Your task to perform on an android device: Add "alienware area 51" to the cart on target.com Image 0: 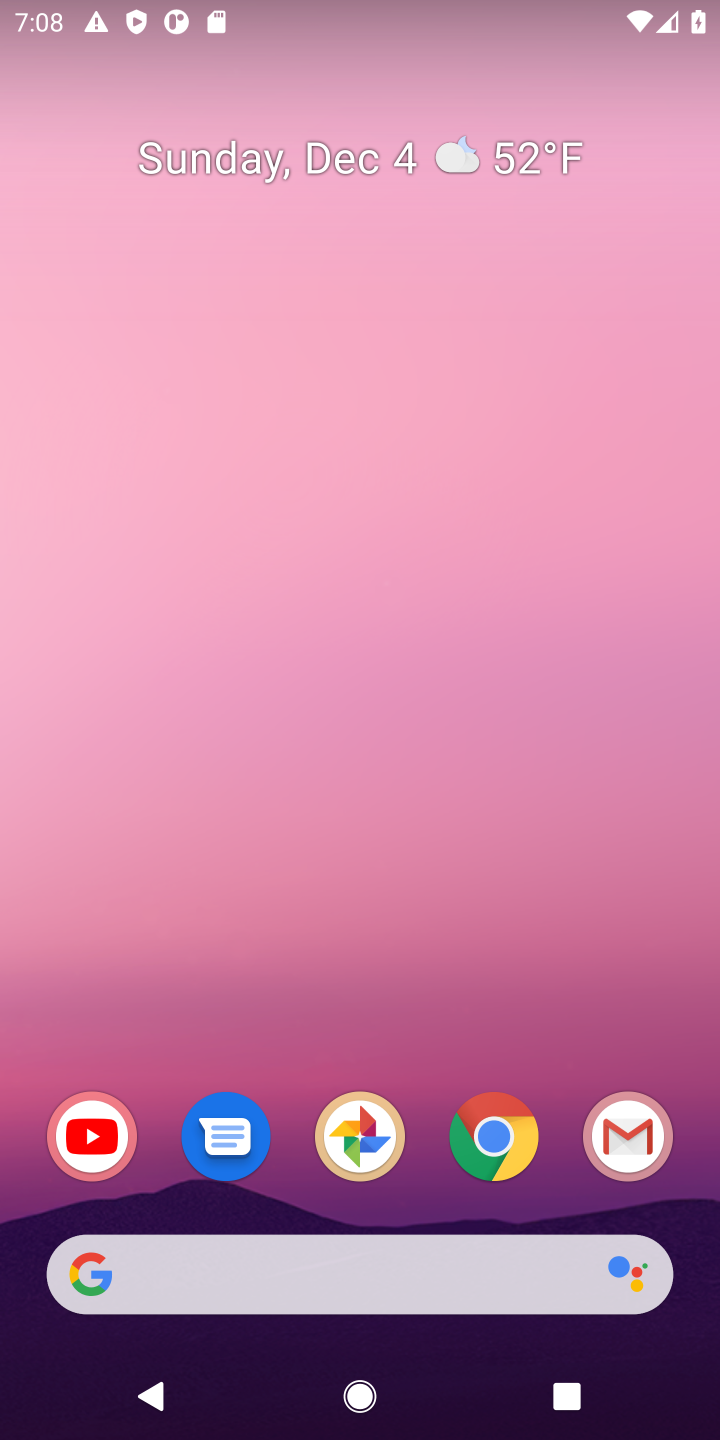
Step 0: click (503, 1143)
Your task to perform on an android device: Add "alienware area 51" to the cart on target.com Image 1: 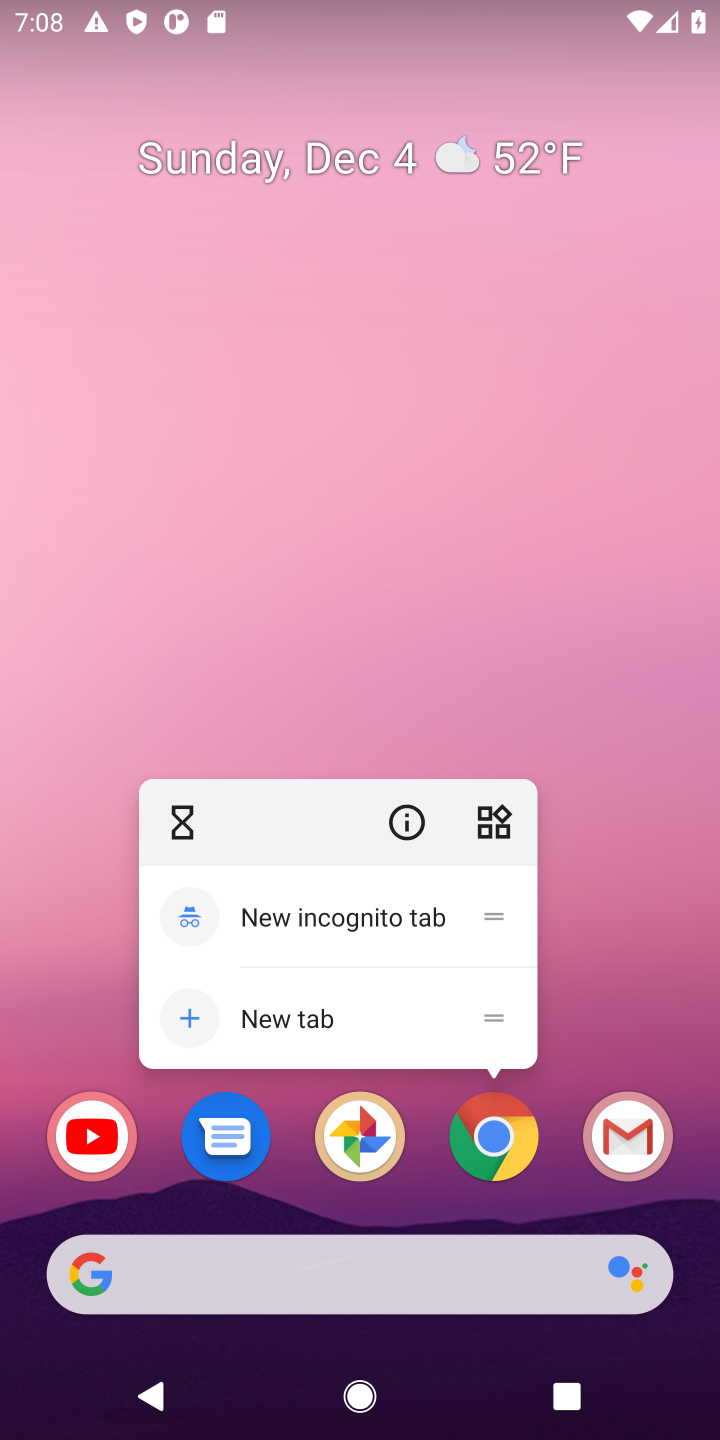
Step 1: click (503, 1143)
Your task to perform on an android device: Add "alienware area 51" to the cart on target.com Image 2: 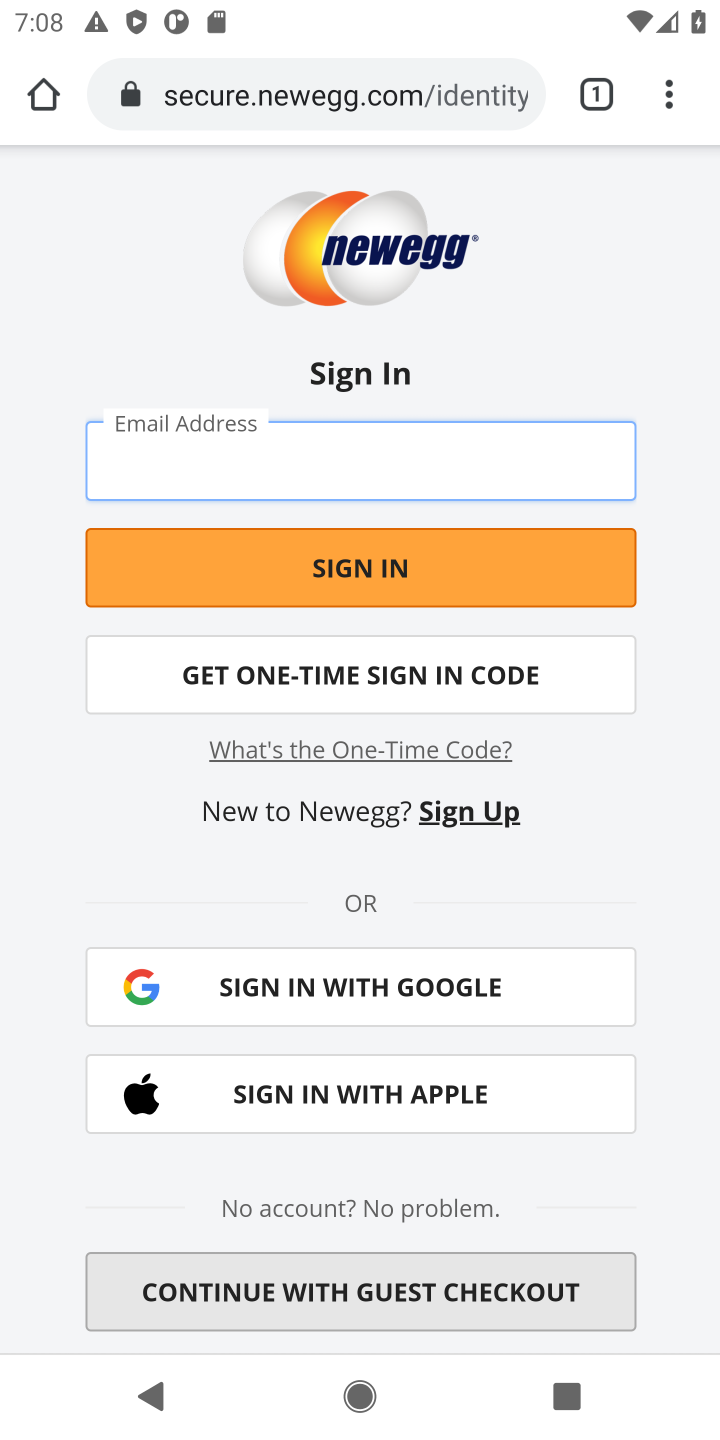
Step 2: click (310, 95)
Your task to perform on an android device: Add "alienware area 51" to the cart on target.com Image 3: 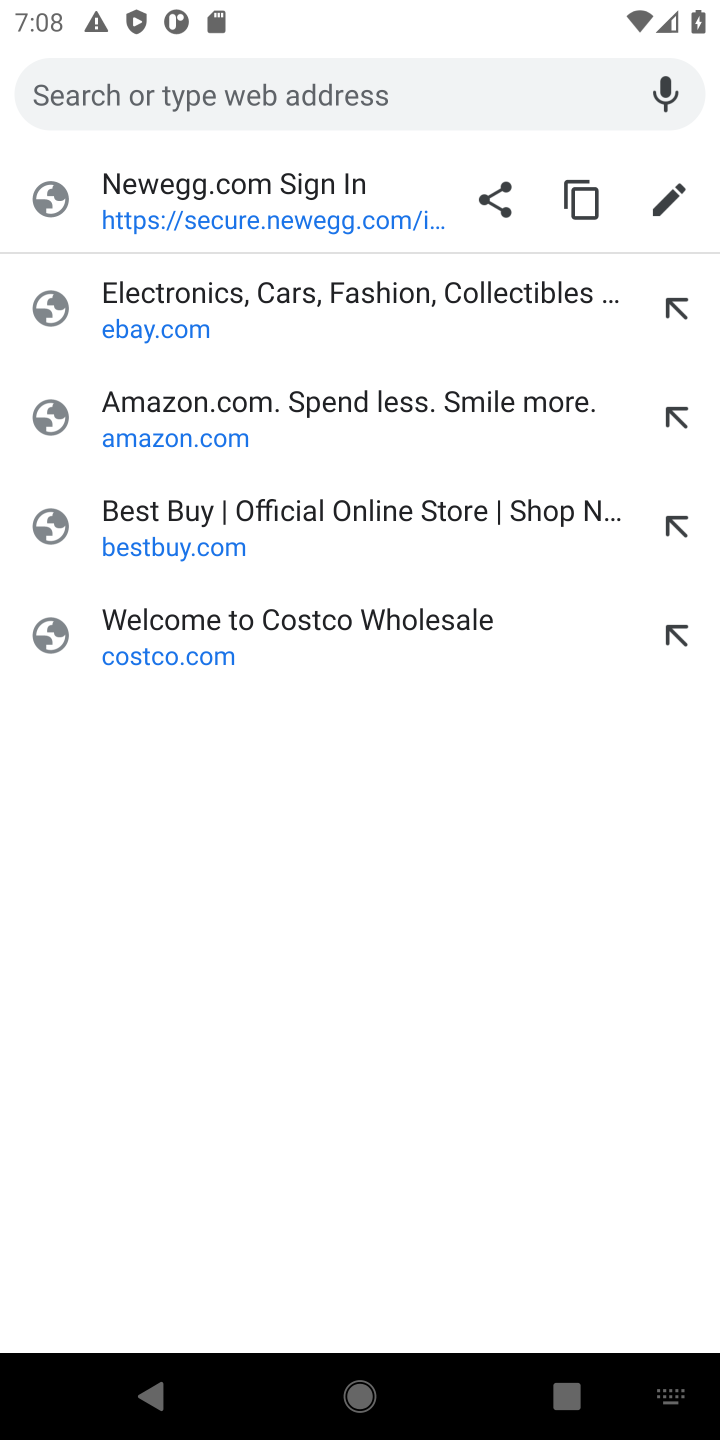
Step 3: type "target.com"
Your task to perform on an android device: Add "alienware area 51" to the cart on target.com Image 4: 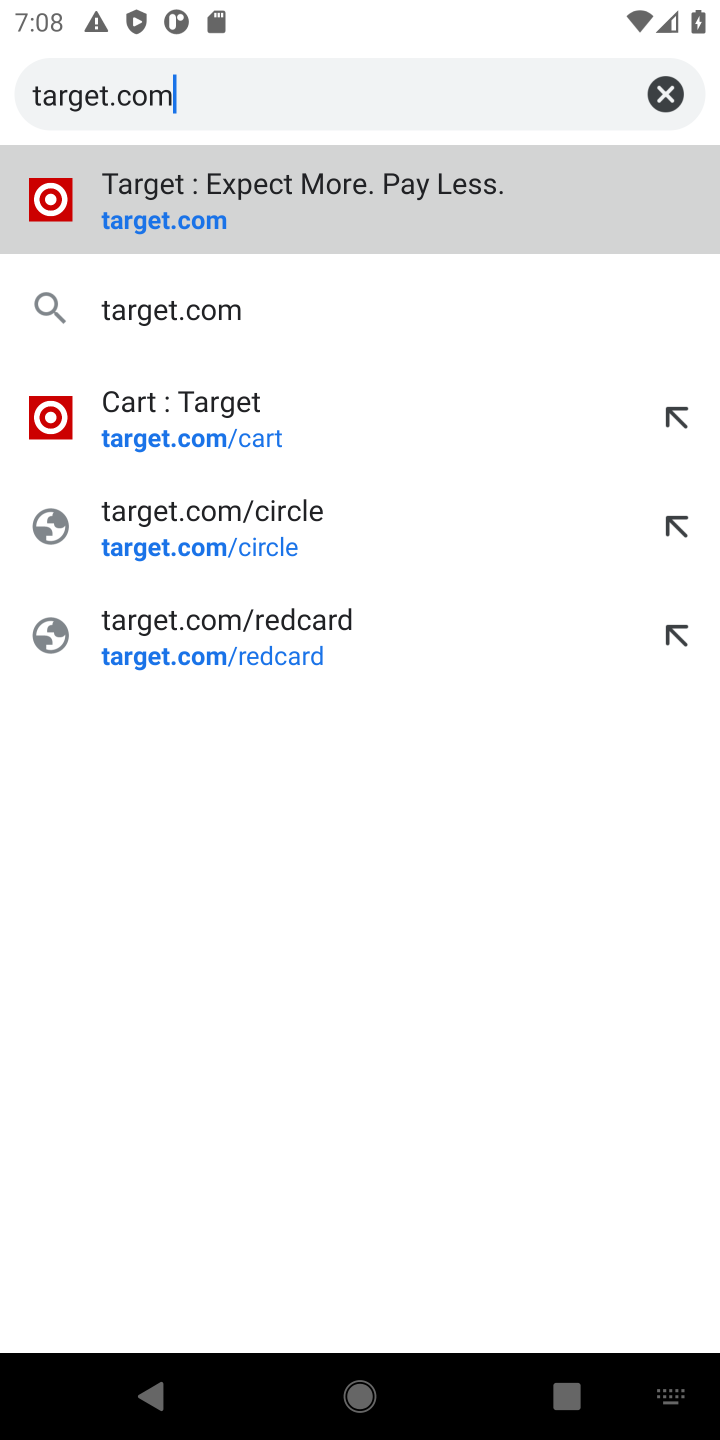
Step 4: click (161, 232)
Your task to perform on an android device: Add "alienware area 51" to the cart on target.com Image 5: 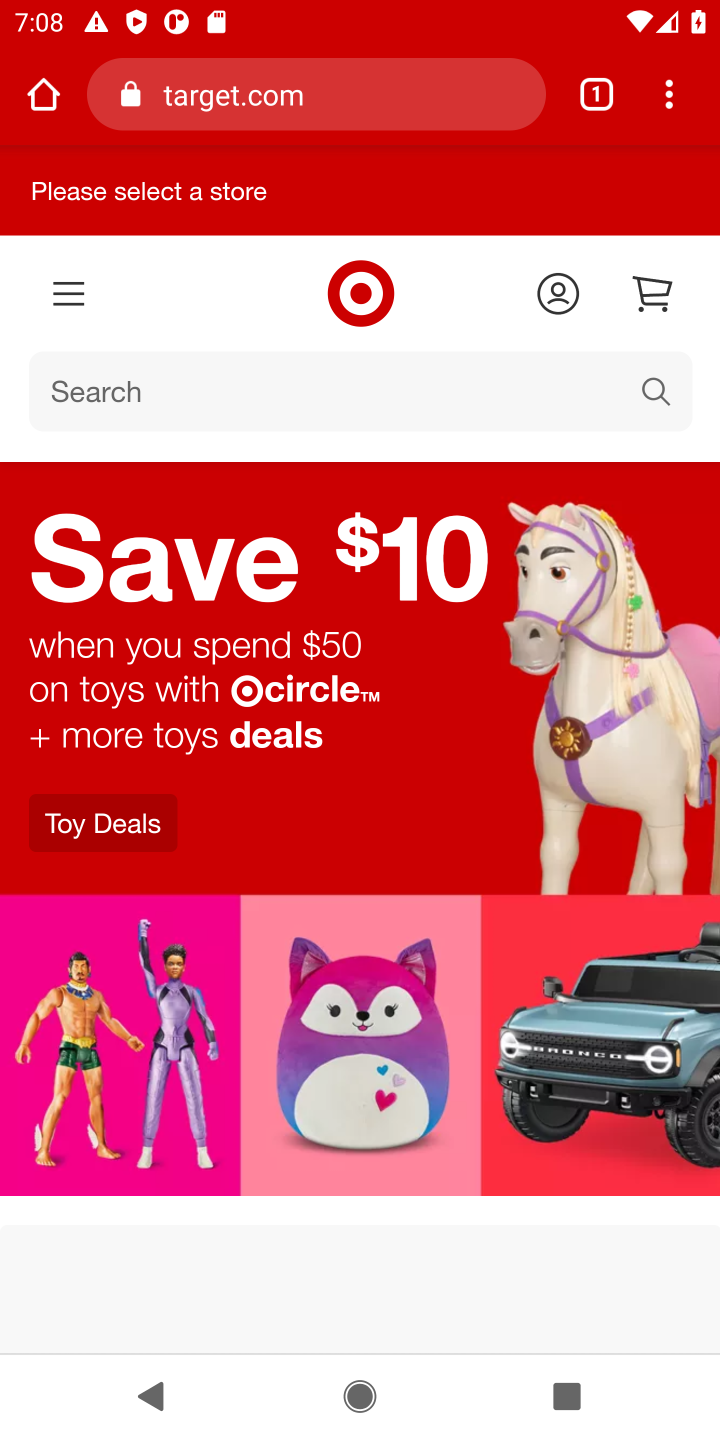
Step 5: click (73, 410)
Your task to perform on an android device: Add "alienware area 51" to the cart on target.com Image 6: 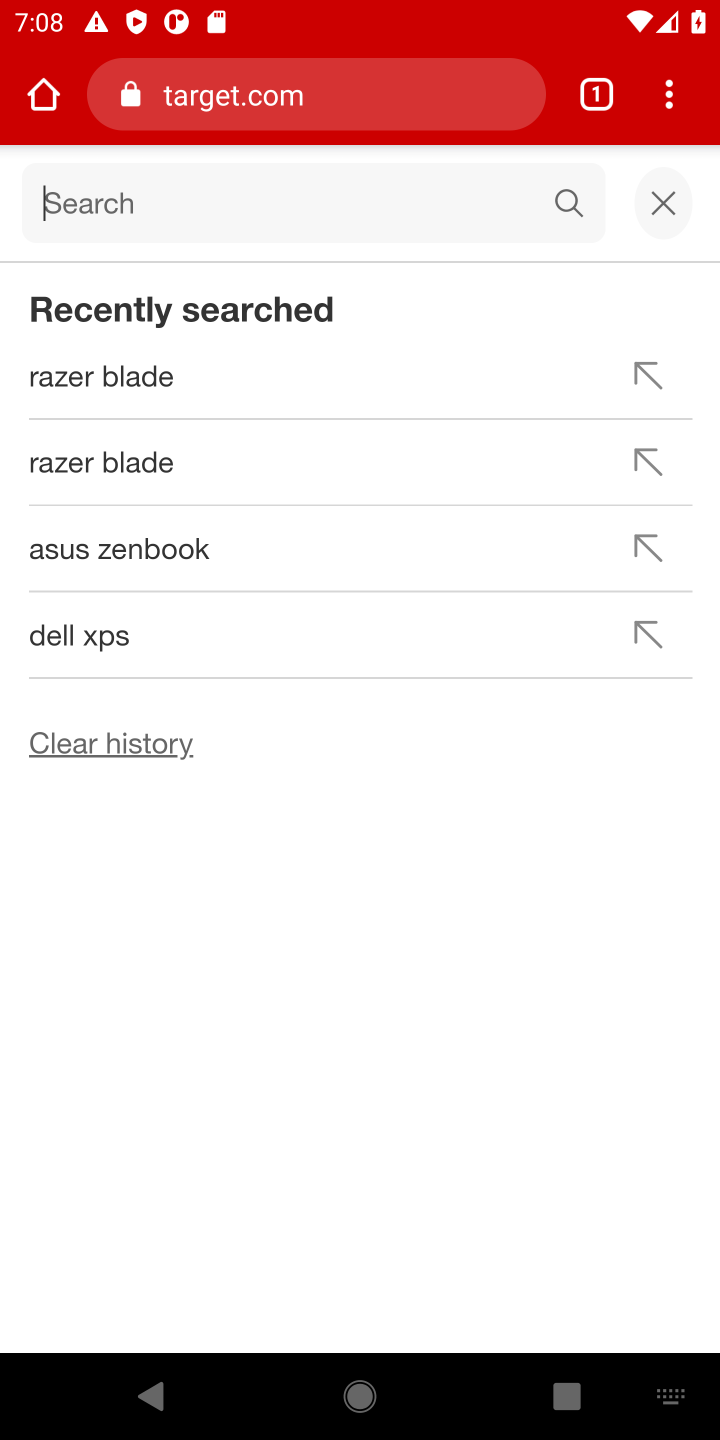
Step 6: type "alienware area 51"
Your task to perform on an android device: Add "alienware area 51" to the cart on target.com Image 7: 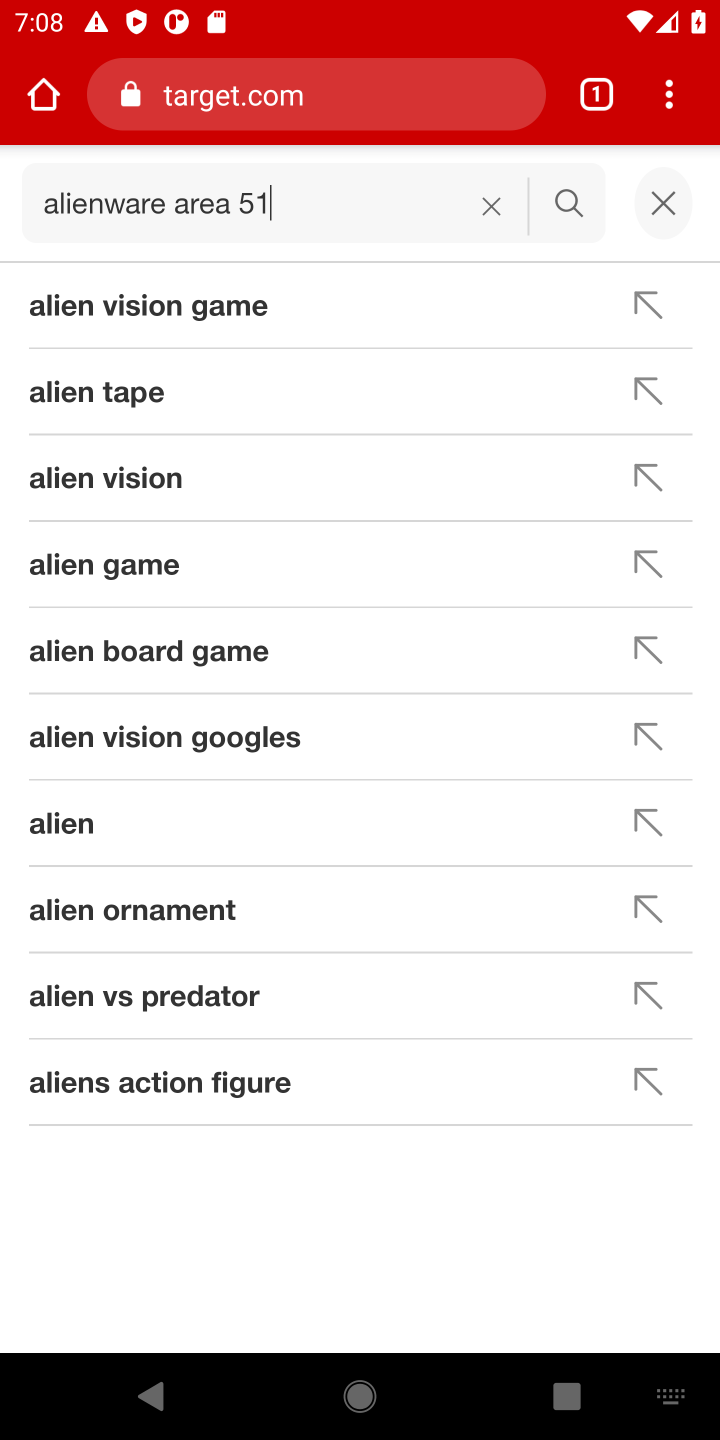
Step 7: click (561, 209)
Your task to perform on an android device: Add "alienware area 51" to the cart on target.com Image 8: 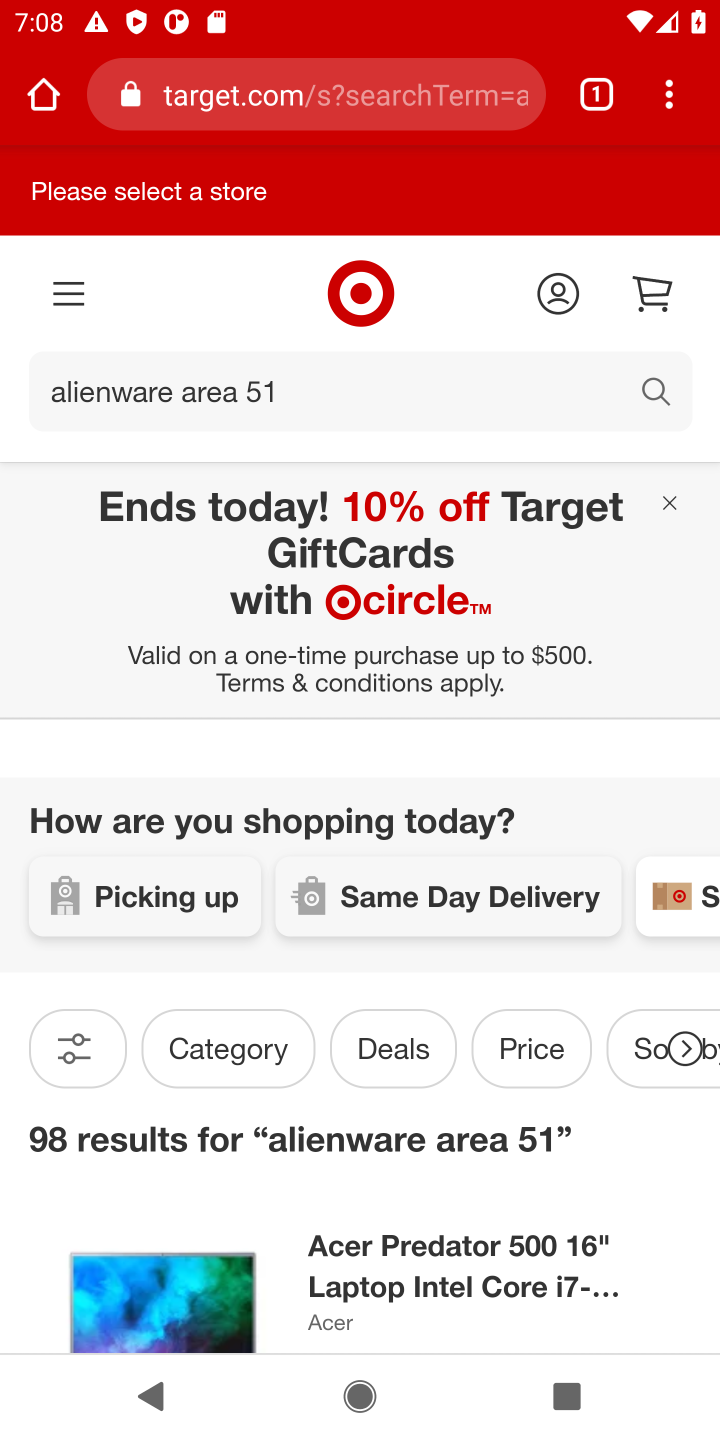
Step 8: task complete